Your task to perform on an android device: Open my contact list Image 0: 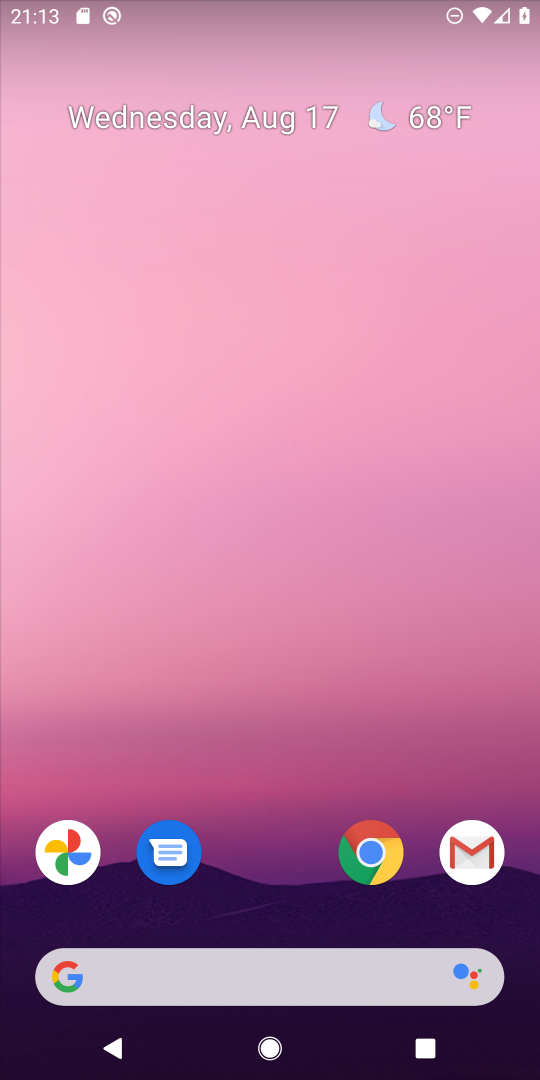
Step 0: drag from (268, 883) to (246, 429)
Your task to perform on an android device: Open my contact list Image 1: 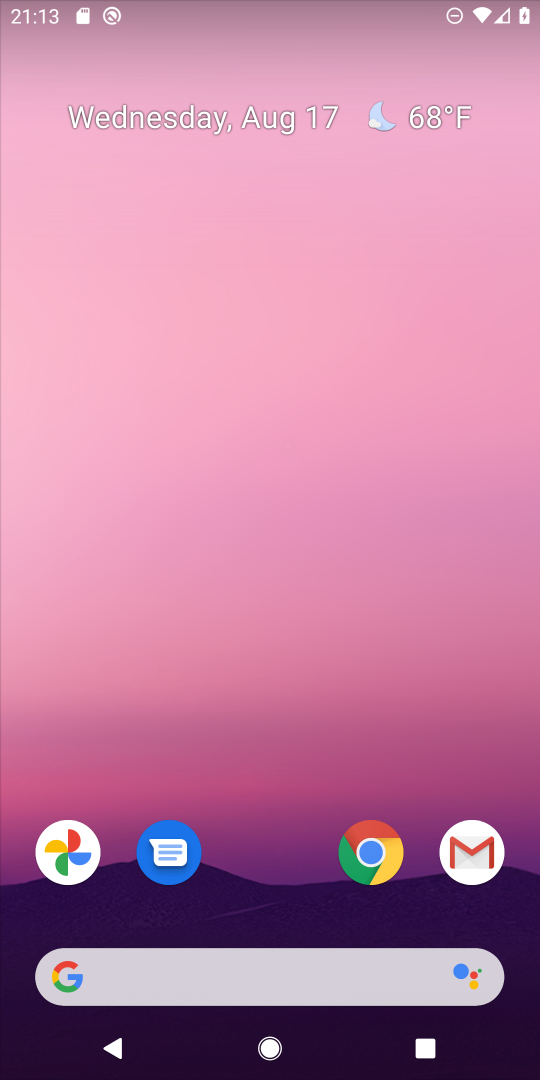
Step 1: drag from (263, 842) to (220, 296)
Your task to perform on an android device: Open my contact list Image 2: 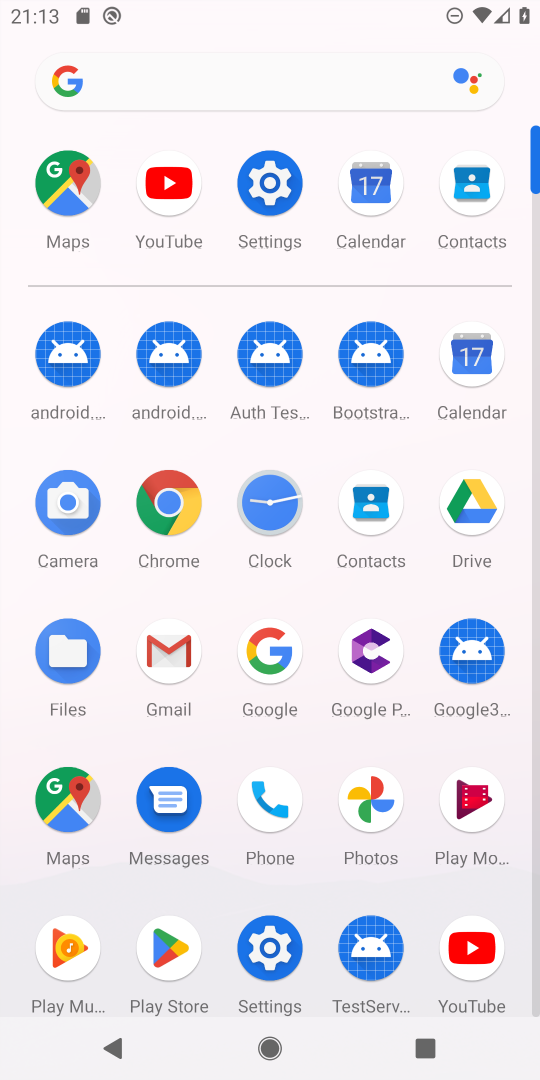
Step 2: click (371, 500)
Your task to perform on an android device: Open my contact list Image 3: 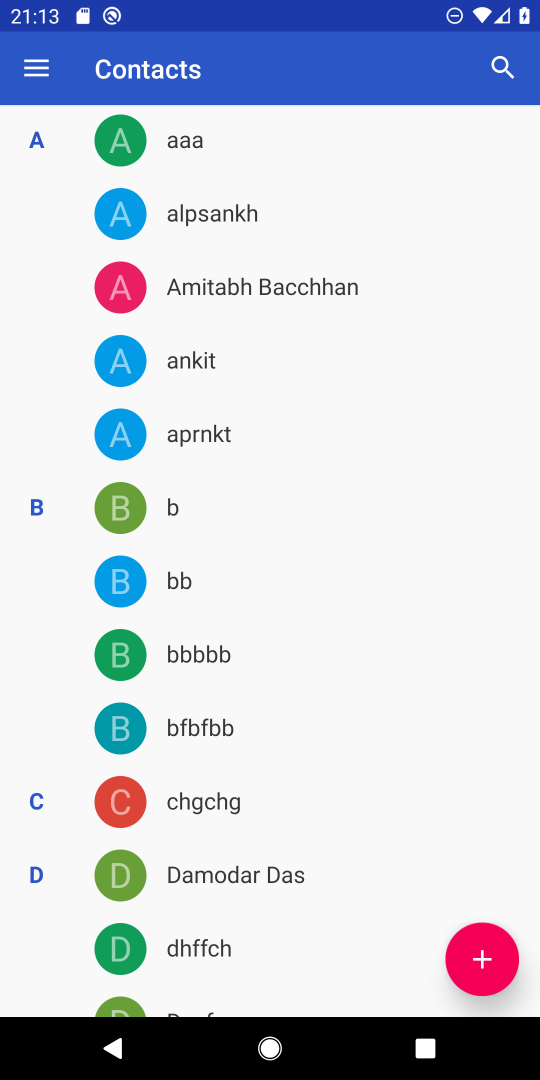
Step 3: task complete